Your task to perform on an android device: Go to notification settings Image 0: 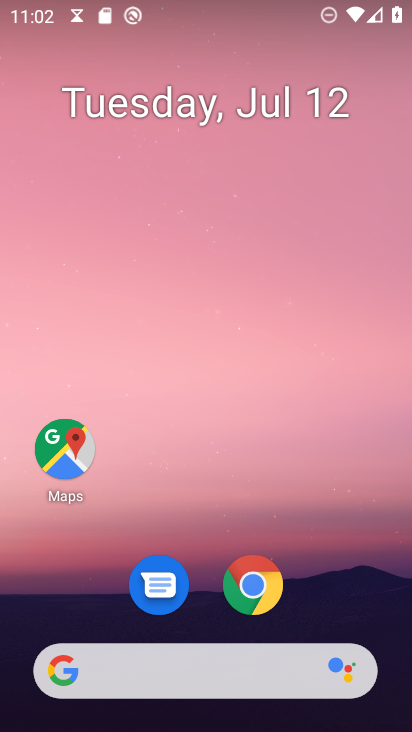
Step 0: press home button
Your task to perform on an android device: Go to notification settings Image 1: 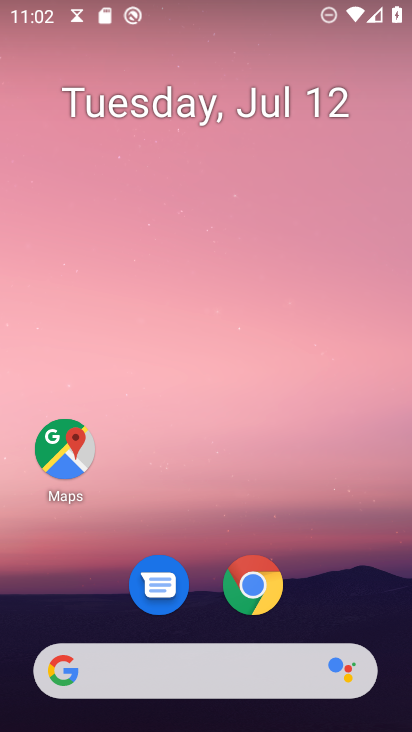
Step 1: drag from (191, 682) to (354, 64)
Your task to perform on an android device: Go to notification settings Image 2: 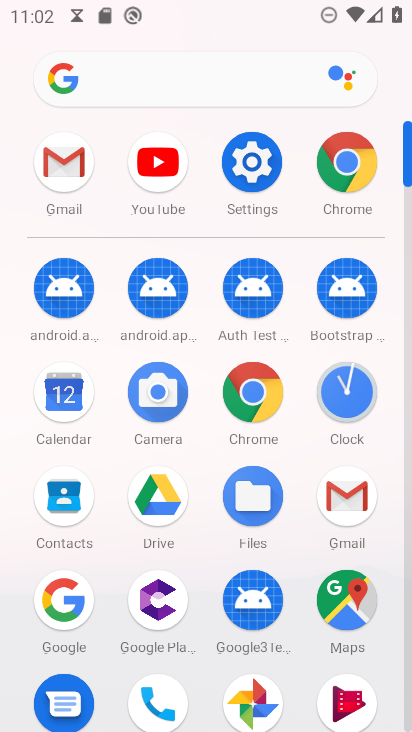
Step 2: click (257, 158)
Your task to perform on an android device: Go to notification settings Image 3: 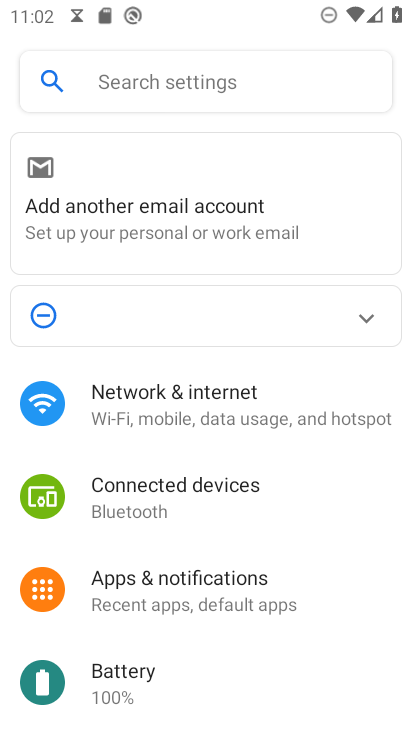
Step 3: click (225, 597)
Your task to perform on an android device: Go to notification settings Image 4: 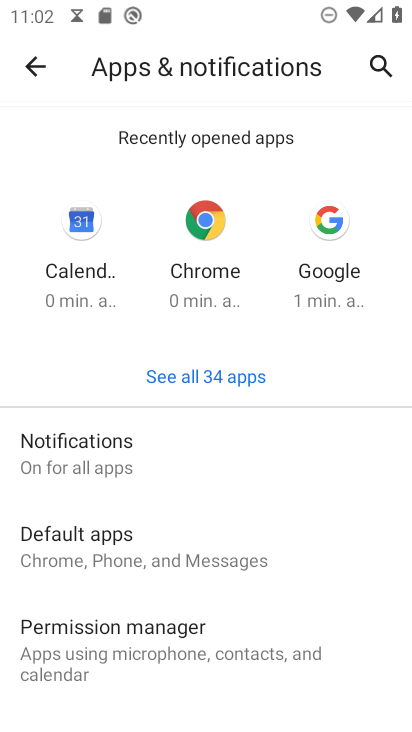
Step 4: click (109, 453)
Your task to perform on an android device: Go to notification settings Image 5: 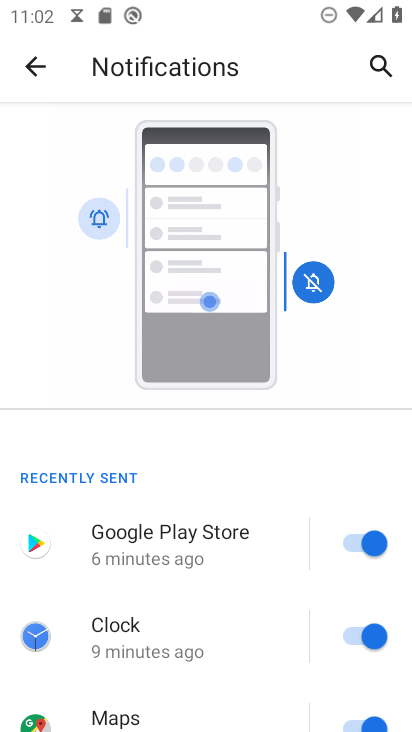
Step 5: task complete